Your task to perform on an android device: Search for the best rated 4K TV on Best Buy. Image 0: 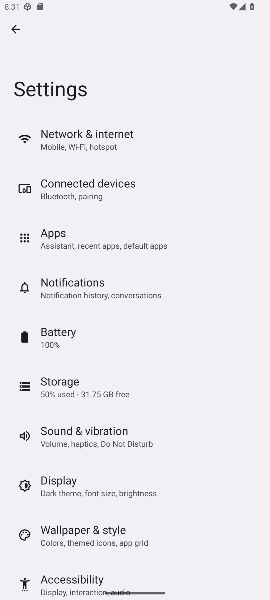
Step 0: press home button
Your task to perform on an android device: Search for the best rated 4K TV on Best Buy. Image 1: 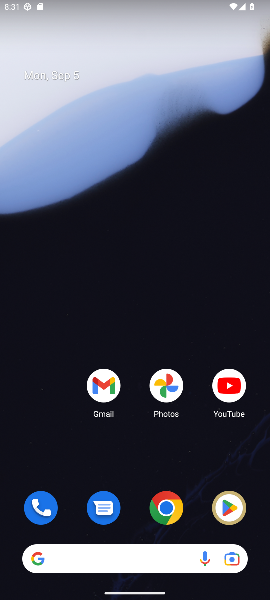
Step 1: click (167, 509)
Your task to perform on an android device: Search for the best rated 4K TV on Best Buy. Image 2: 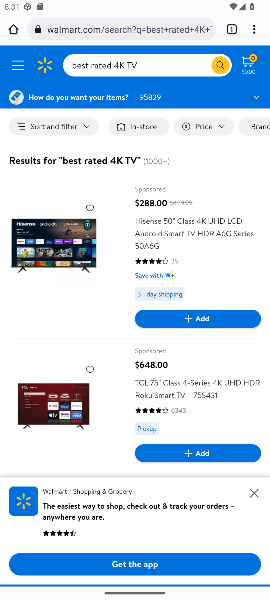
Step 2: click (95, 29)
Your task to perform on an android device: Search for the best rated 4K TV on Best Buy. Image 3: 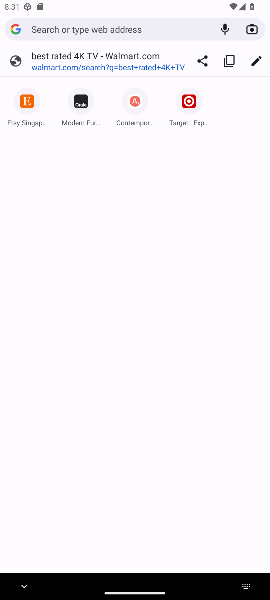
Step 3: type " Best Buy."
Your task to perform on an android device: Search for the best rated 4K TV on Best Buy. Image 4: 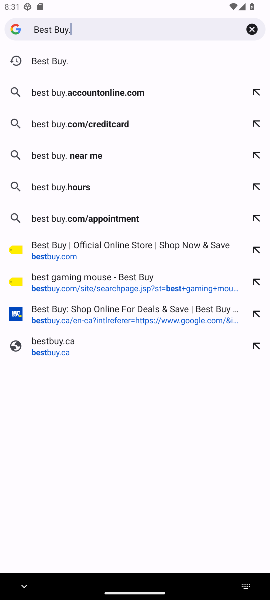
Step 4: click (42, 65)
Your task to perform on an android device: Search for the best rated 4K TV on Best Buy. Image 5: 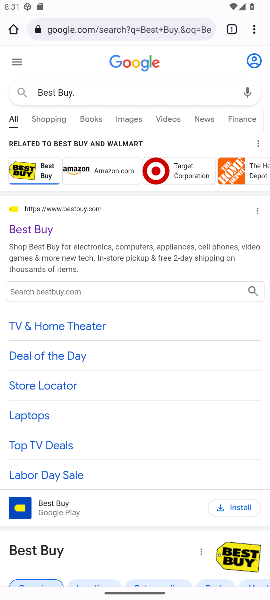
Step 5: click (30, 231)
Your task to perform on an android device: Search for the best rated 4K TV on Best Buy. Image 6: 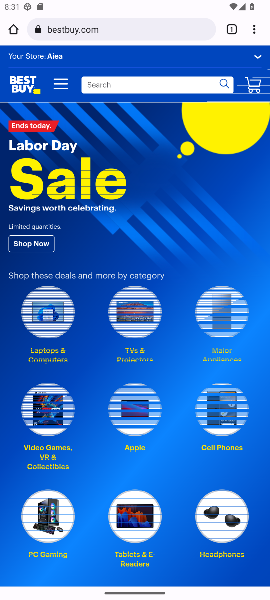
Step 6: click (103, 87)
Your task to perform on an android device: Search for the best rated 4K TV on Best Buy. Image 7: 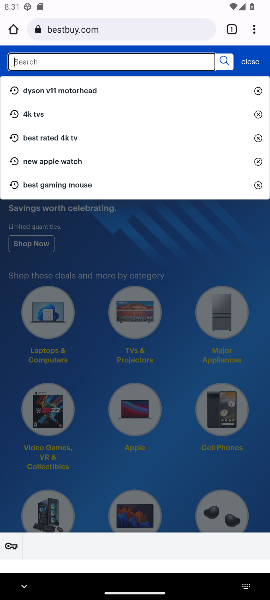
Step 7: type "best rated 4K TV"
Your task to perform on an android device: Search for the best rated 4K TV on Best Buy. Image 8: 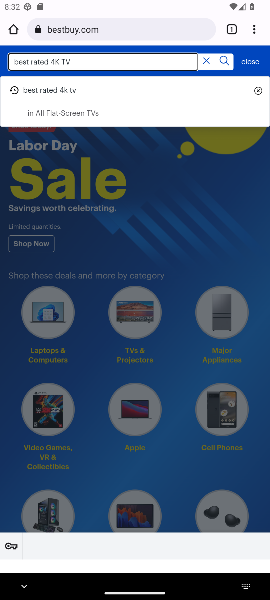
Step 8: click (227, 62)
Your task to perform on an android device: Search for the best rated 4K TV on Best Buy. Image 9: 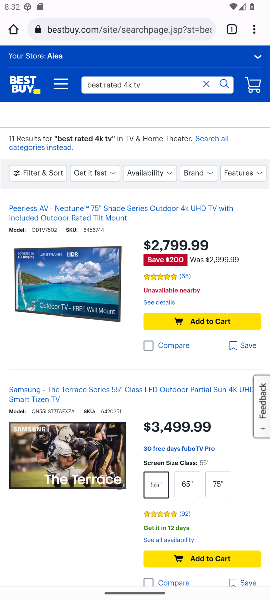
Step 9: task complete